Your task to perform on an android device: turn off location Image 0: 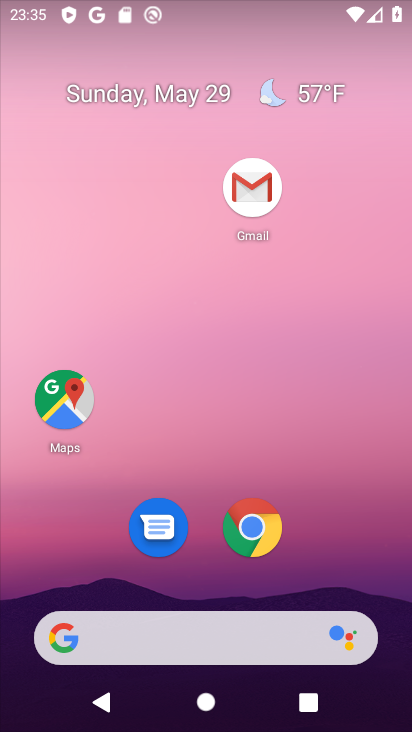
Step 0: drag from (335, 568) to (274, 80)
Your task to perform on an android device: turn off location Image 1: 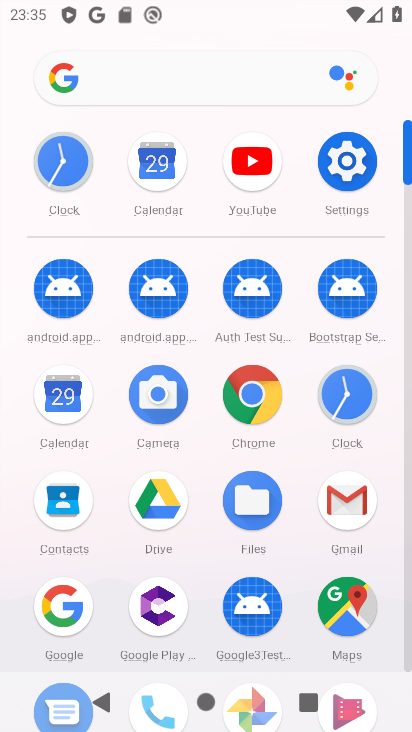
Step 1: click (346, 159)
Your task to perform on an android device: turn off location Image 2: 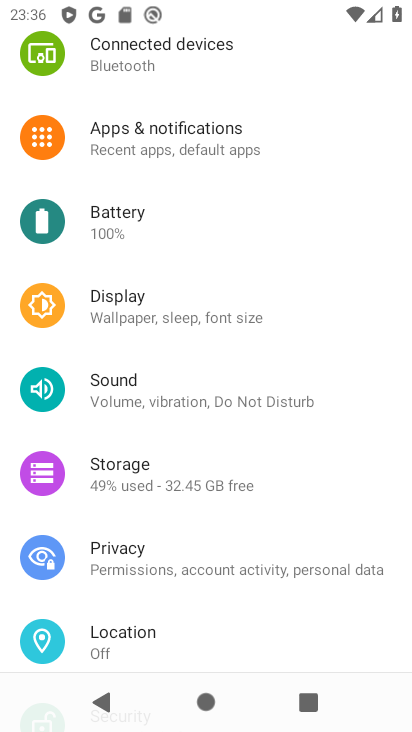
Step 2: drag from (179, 551) to (229, 464)
Your task to perform on an android device: turn off location Image 3: 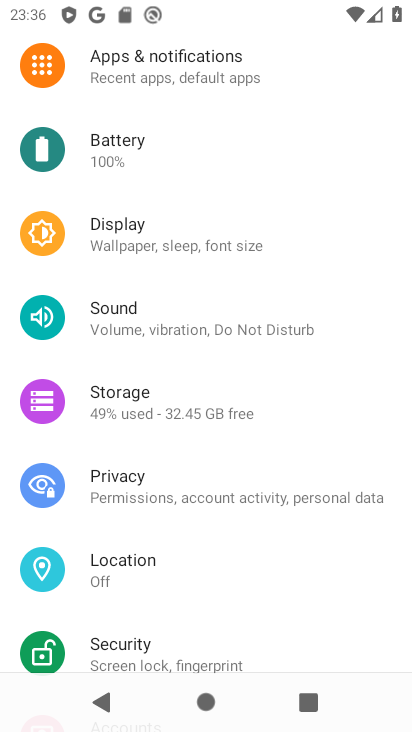
Step 3: click (159, 567)
Your task to perform on an android device: turn off location Image 4: 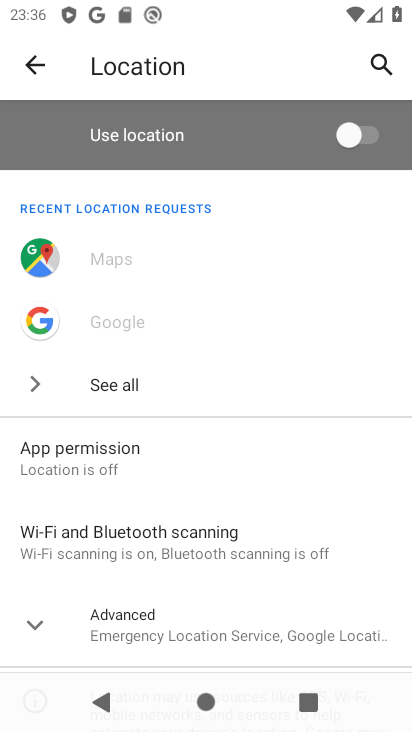
Step 4: task complete